Your task to perform on an android device: What's the weather going to be tomorrow? Image 0: 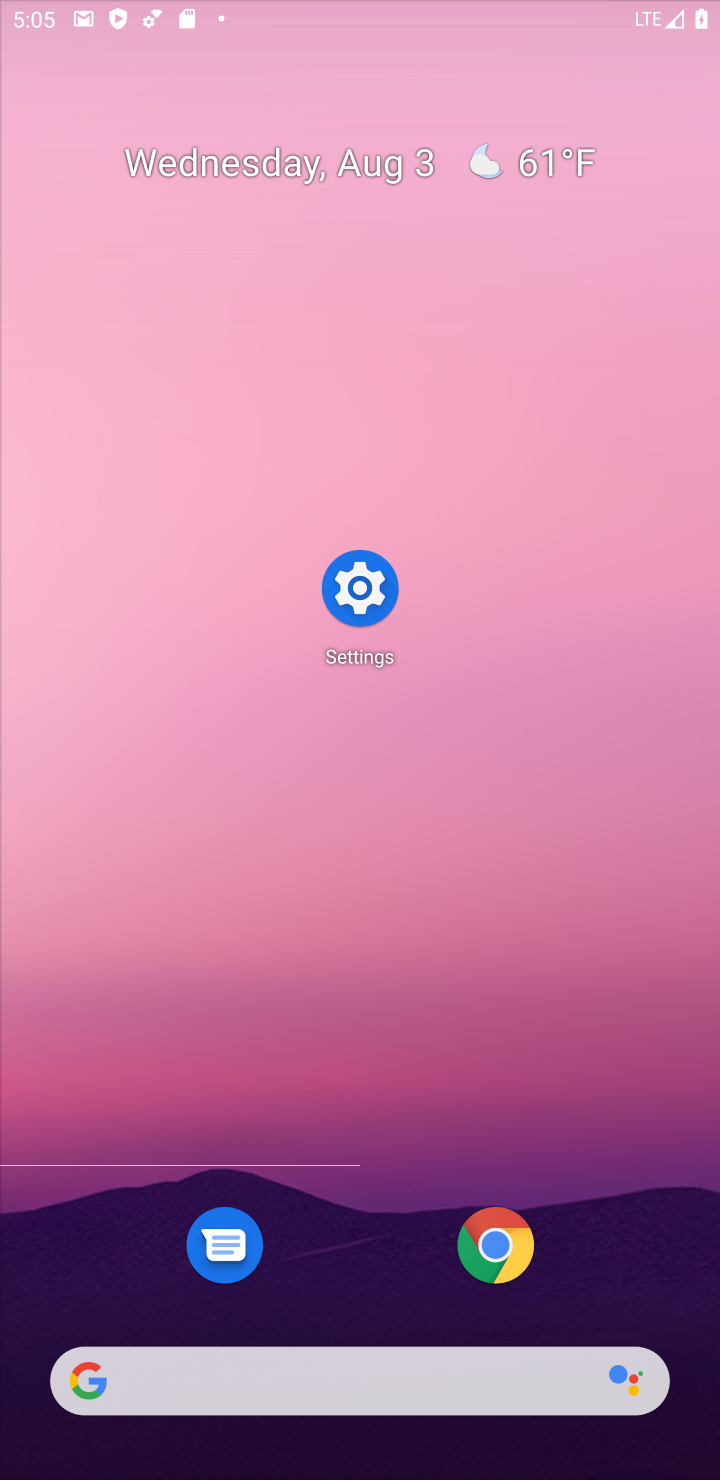
Step 0: press back button
Your task to perform on an android device: What's the weather going to be tomorrow? Image 1: 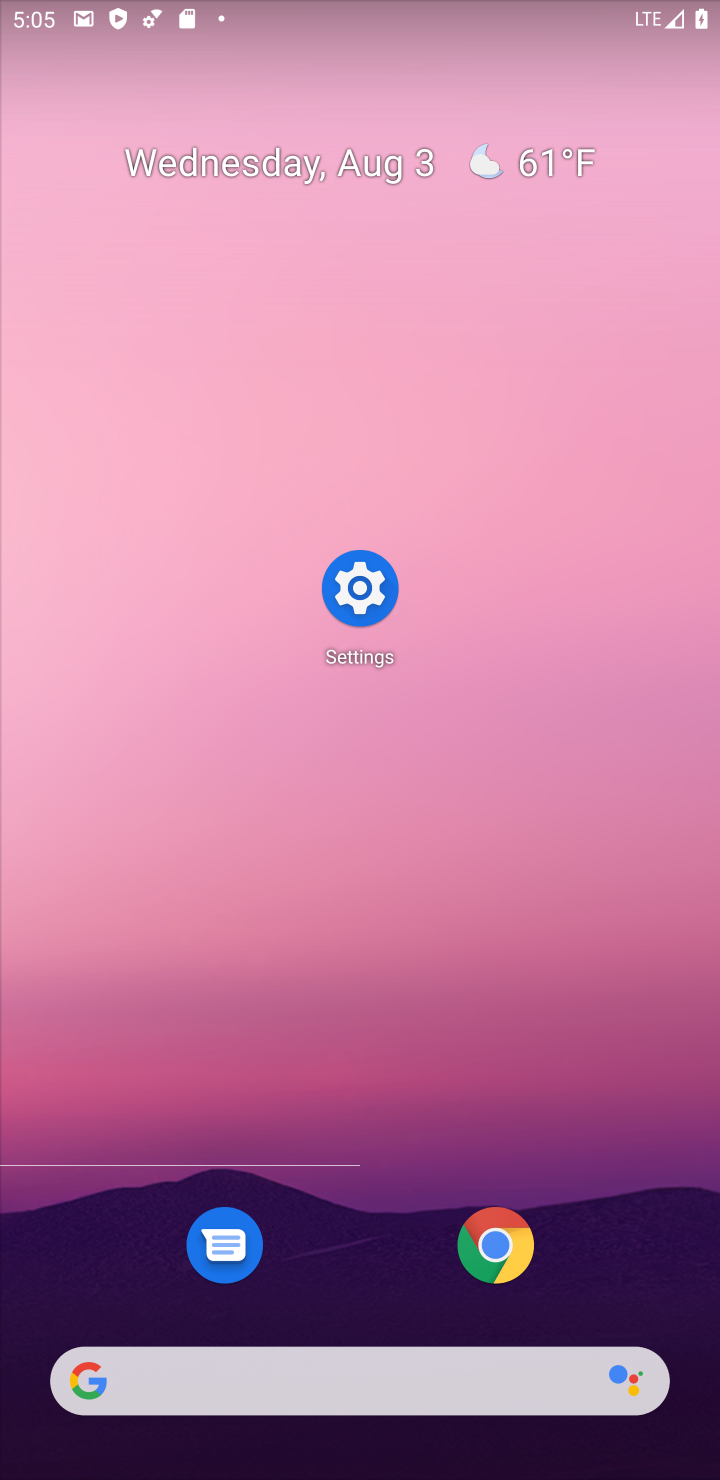
Step 1: click (481, 1255)
Your task to perform on an android device: What's the weather going to be tomorrow? Image 2: 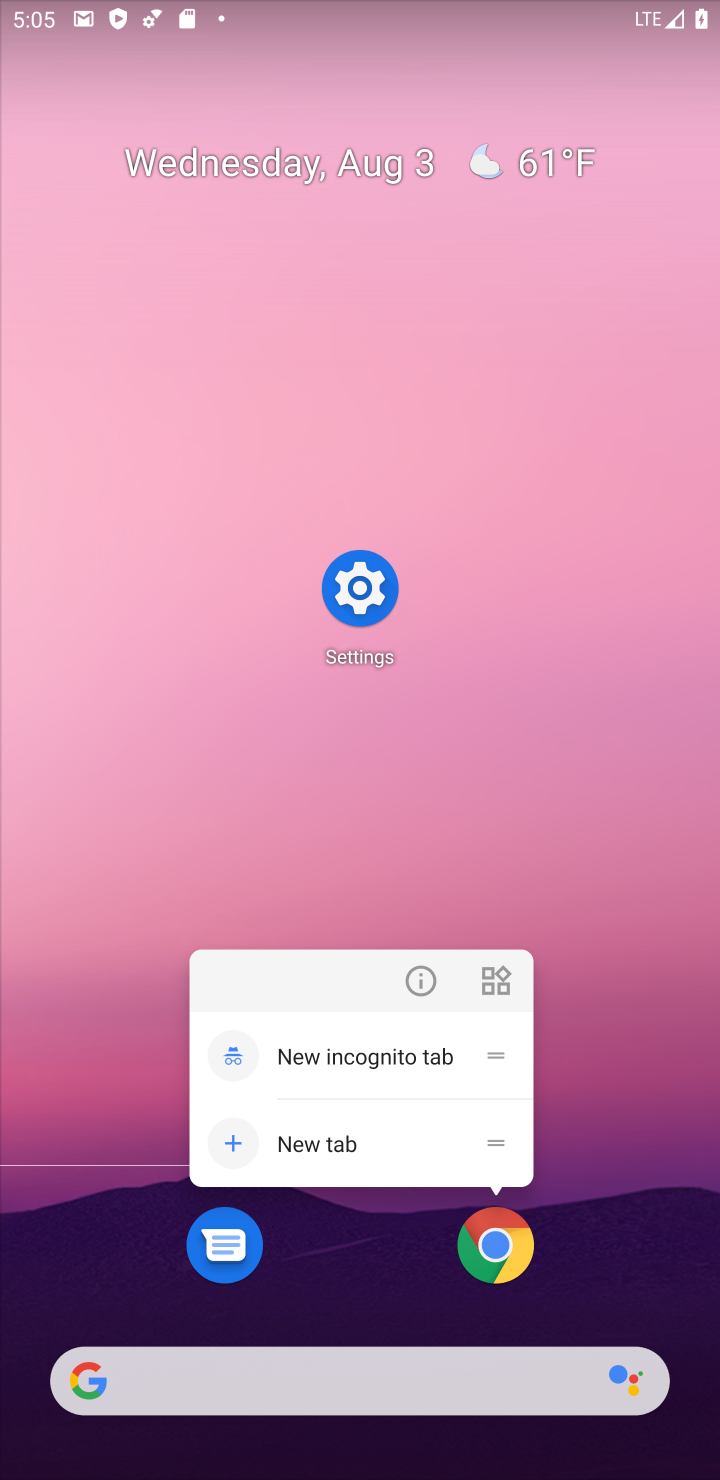
Step 2: click (498, 1287)
Your task to perform on an android device: What's the weather going to be tomorrow? Image 3: 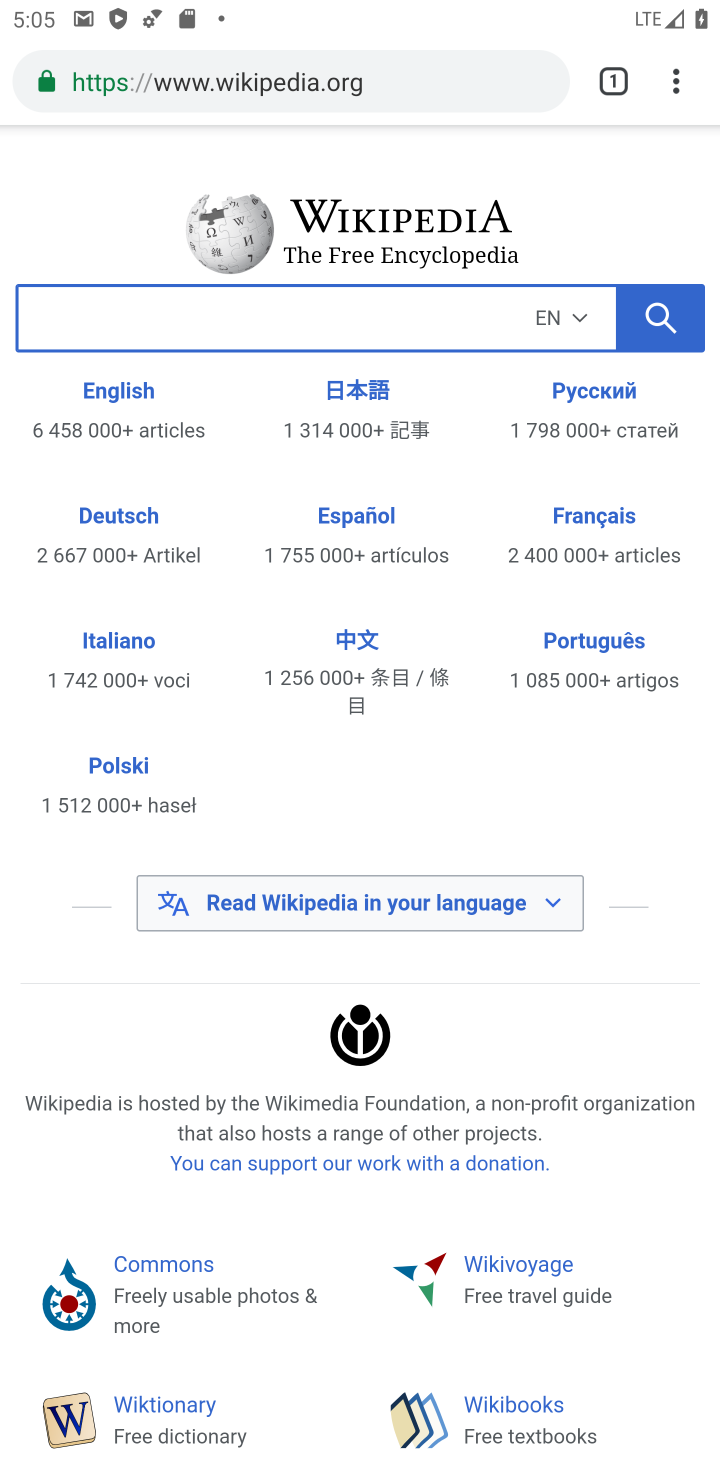
Step 3: click (304, 73)
Your task to perform on an android device: What's the weather going to be tomorrow? Image 4: 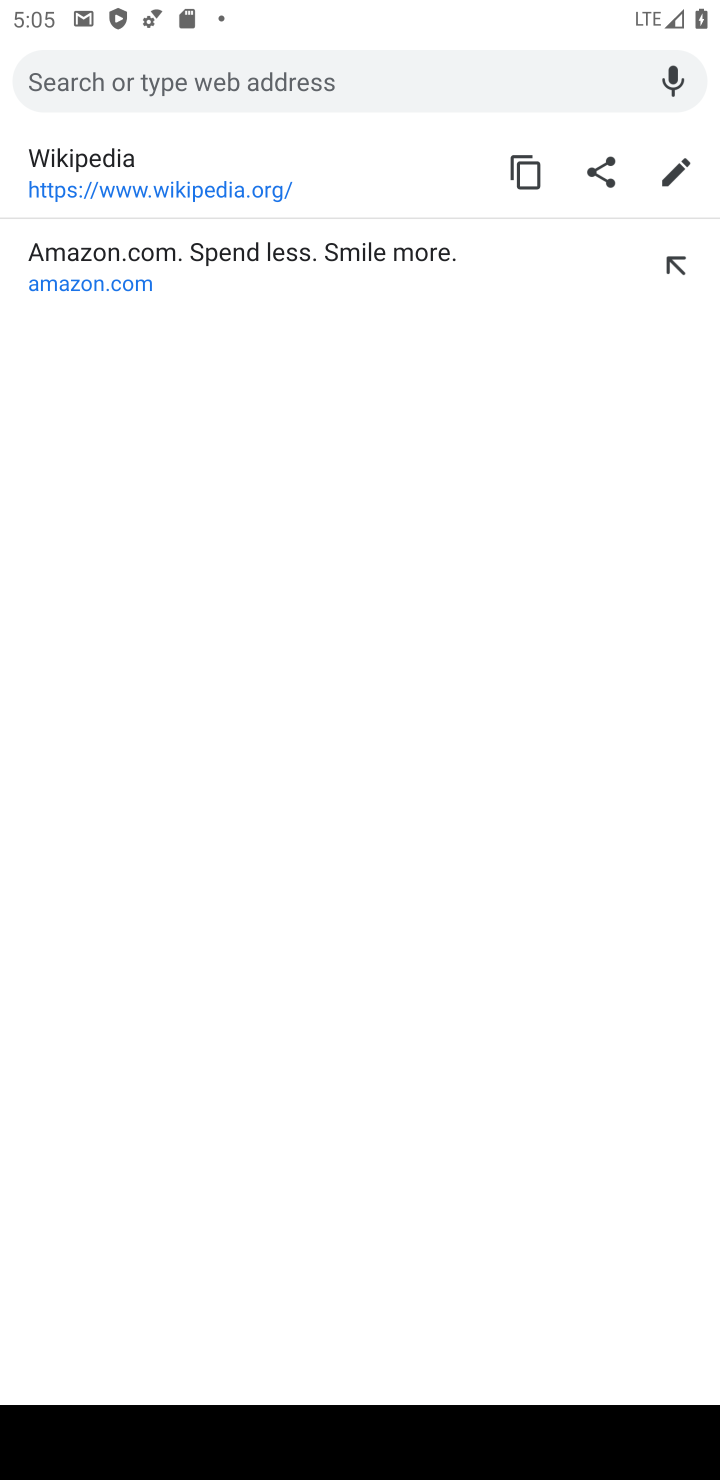
Step 4: type "weather tomorrow"
Your task to perform on an android device: What's the weather going to be tomorrow? Image 5: 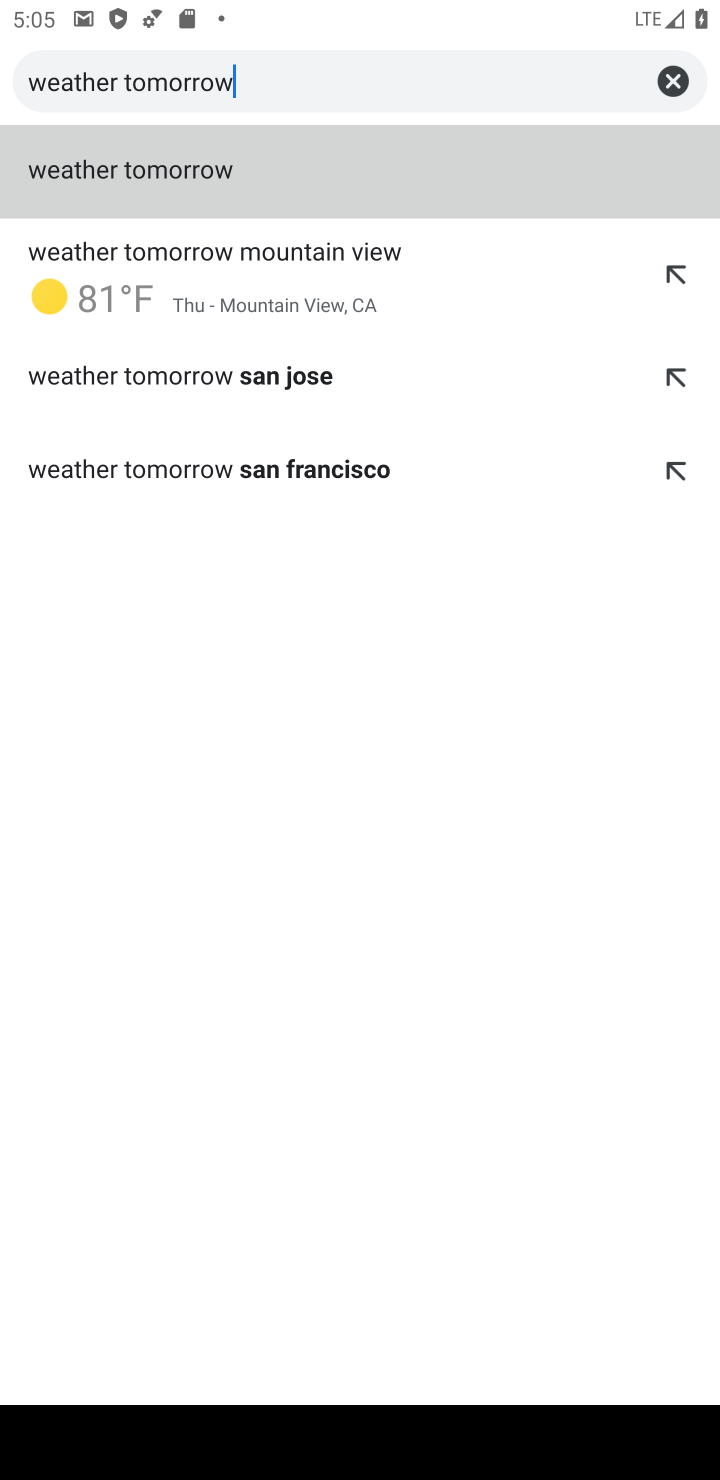
Step 5: type "weather"
Your task to perform on an android device: What's the weather going to be tomorrow? Image 6: 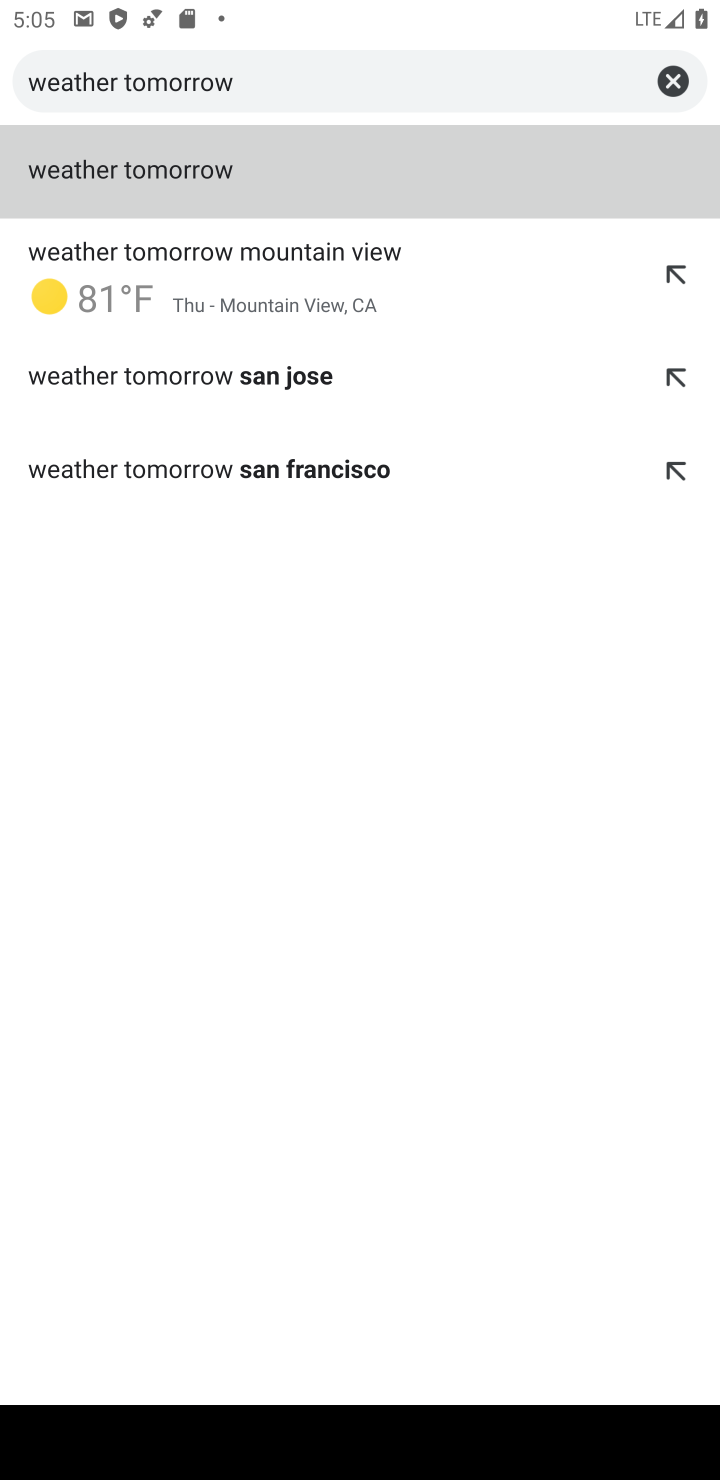
Step 6: click (111, 181)
Your task to perform on an android device: What's the weather going to be tomorrow? Image 7: 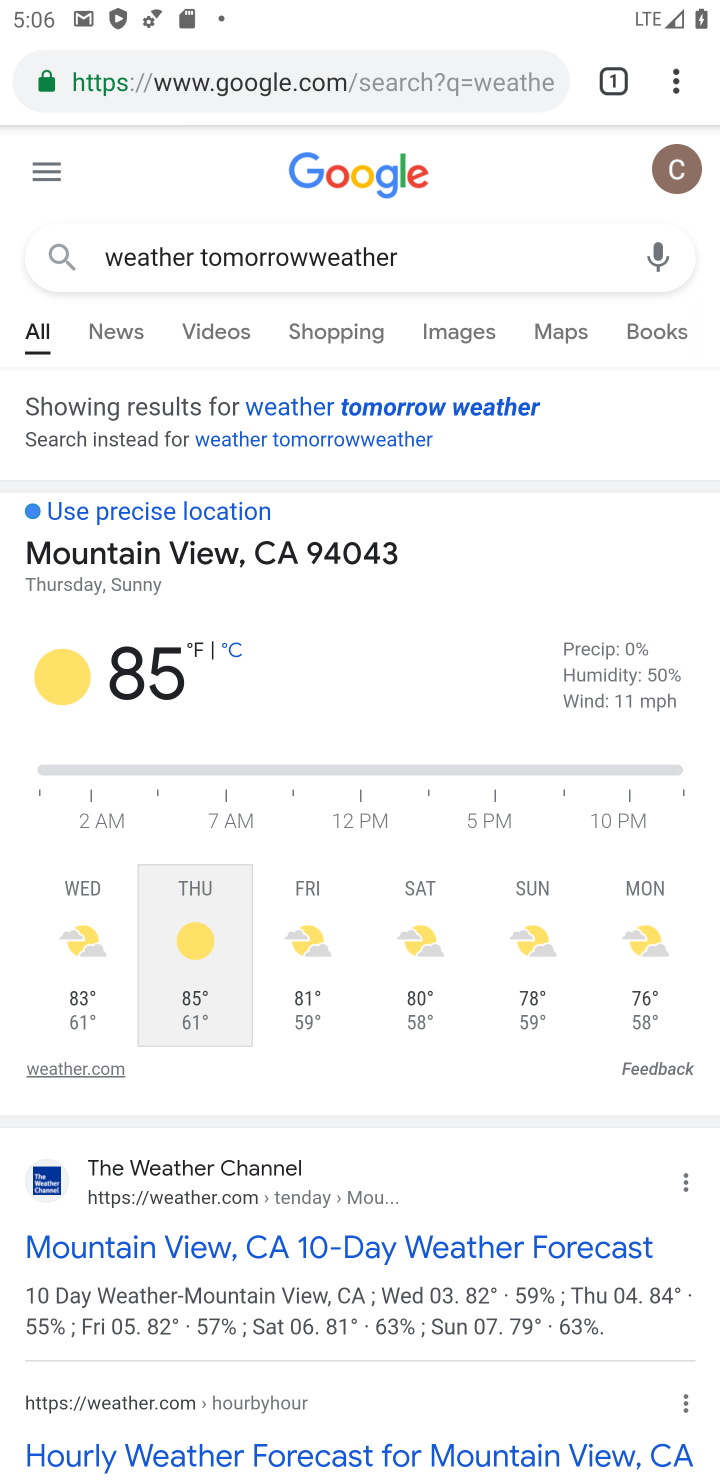
Step 7: task complete